Your task to perform on an android device: Search for sushi restaurants on Maps Image 0: 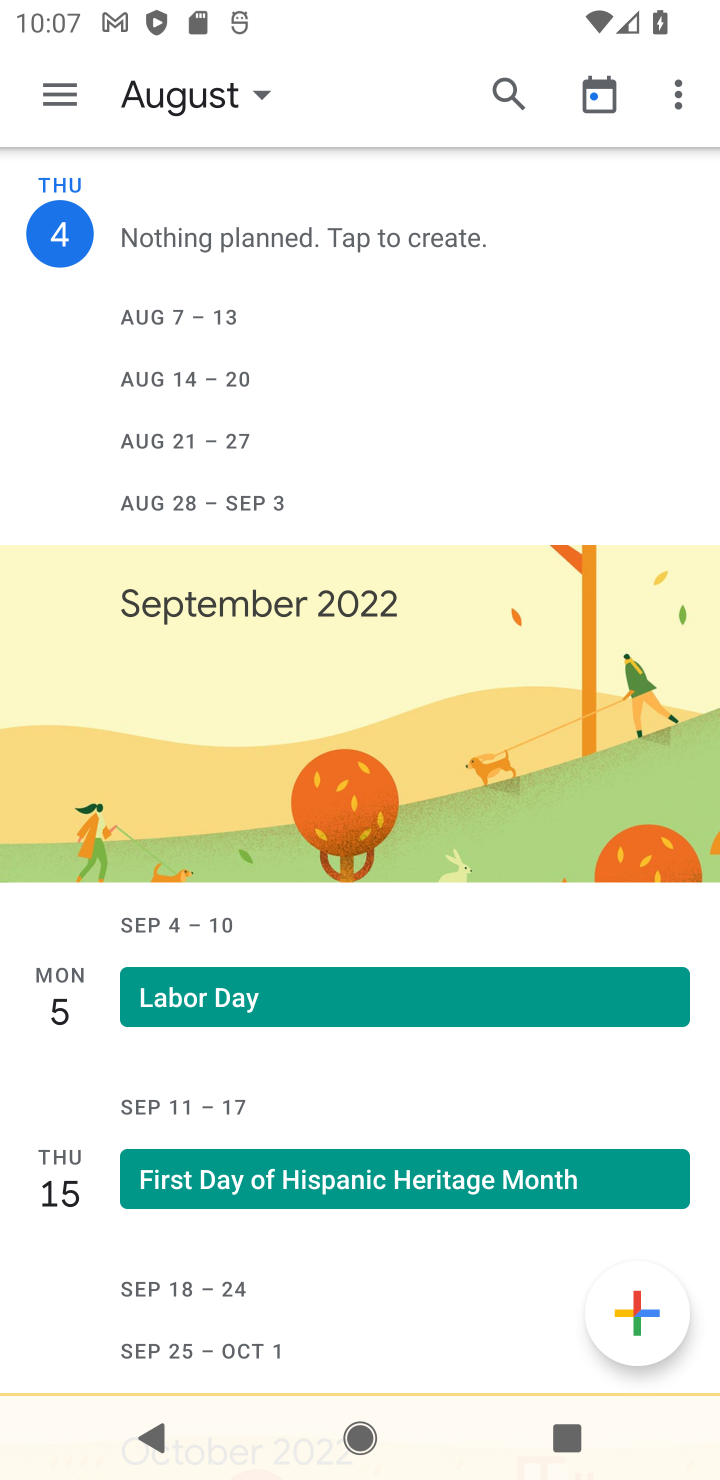
Step 0: press home button
Your task to perform on an android device: Search for sushi restaurants on Maps Image 1: 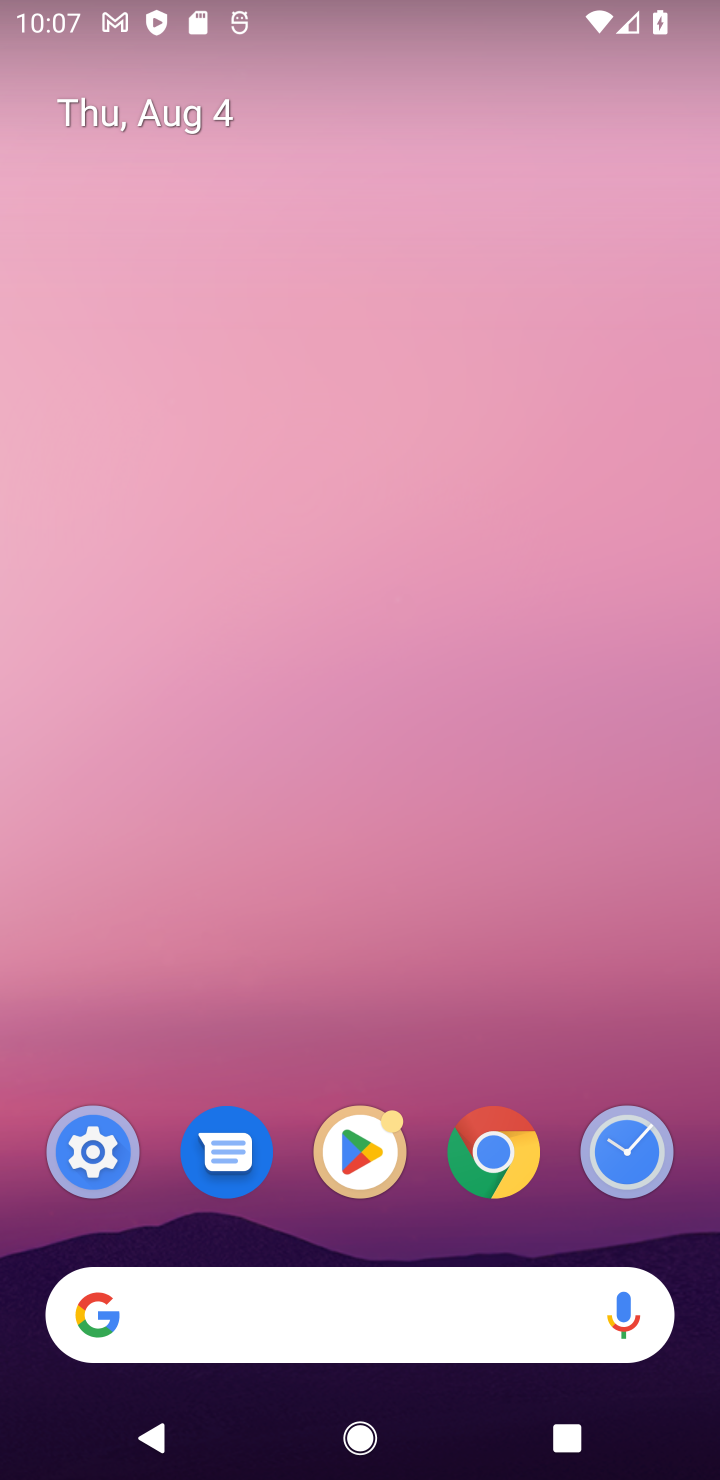
Step 1: drag from (288, 707) to (258, 25)
Your task to perform on an android device: Search for sushi restaurants on Maps Image 2: 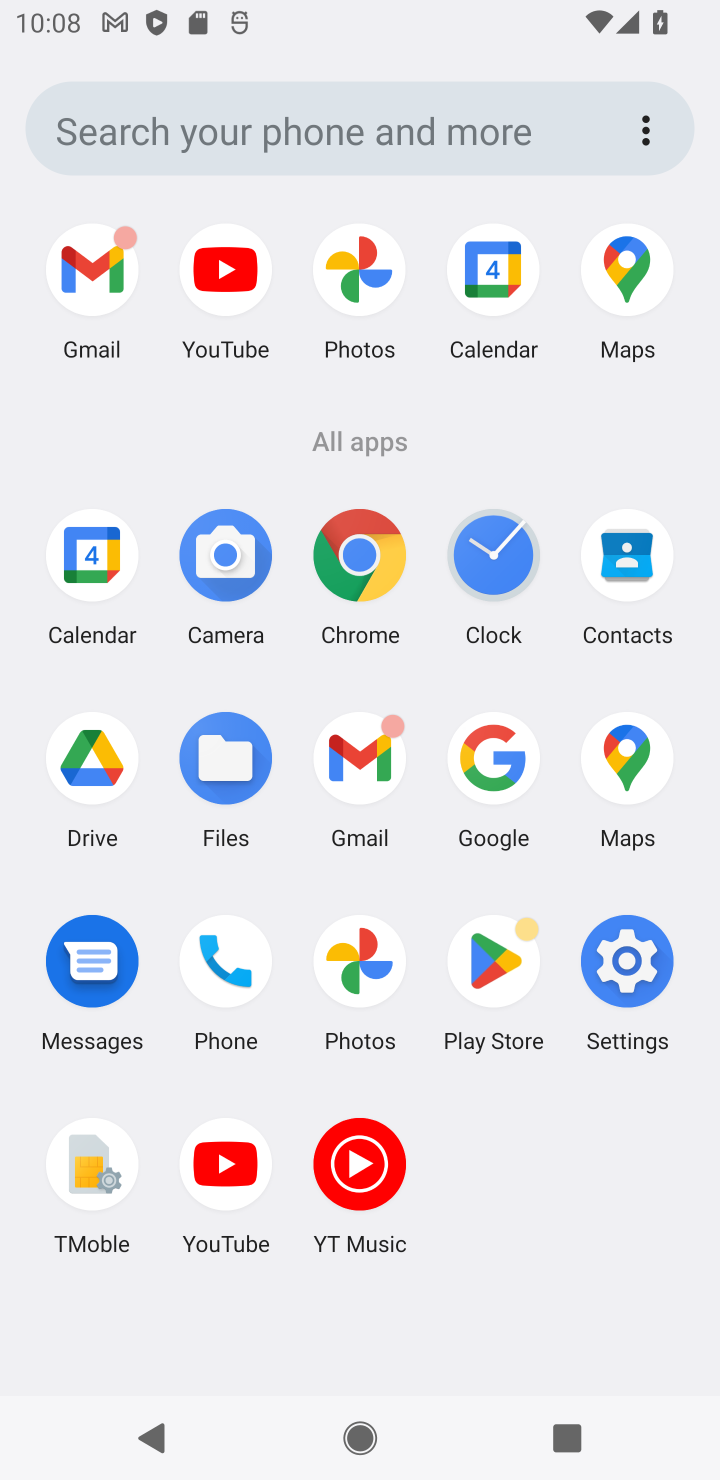
Step 2: click (620, 773)
Your task to perform on an android device: Search for sushi restaurants on Maps Image 3: 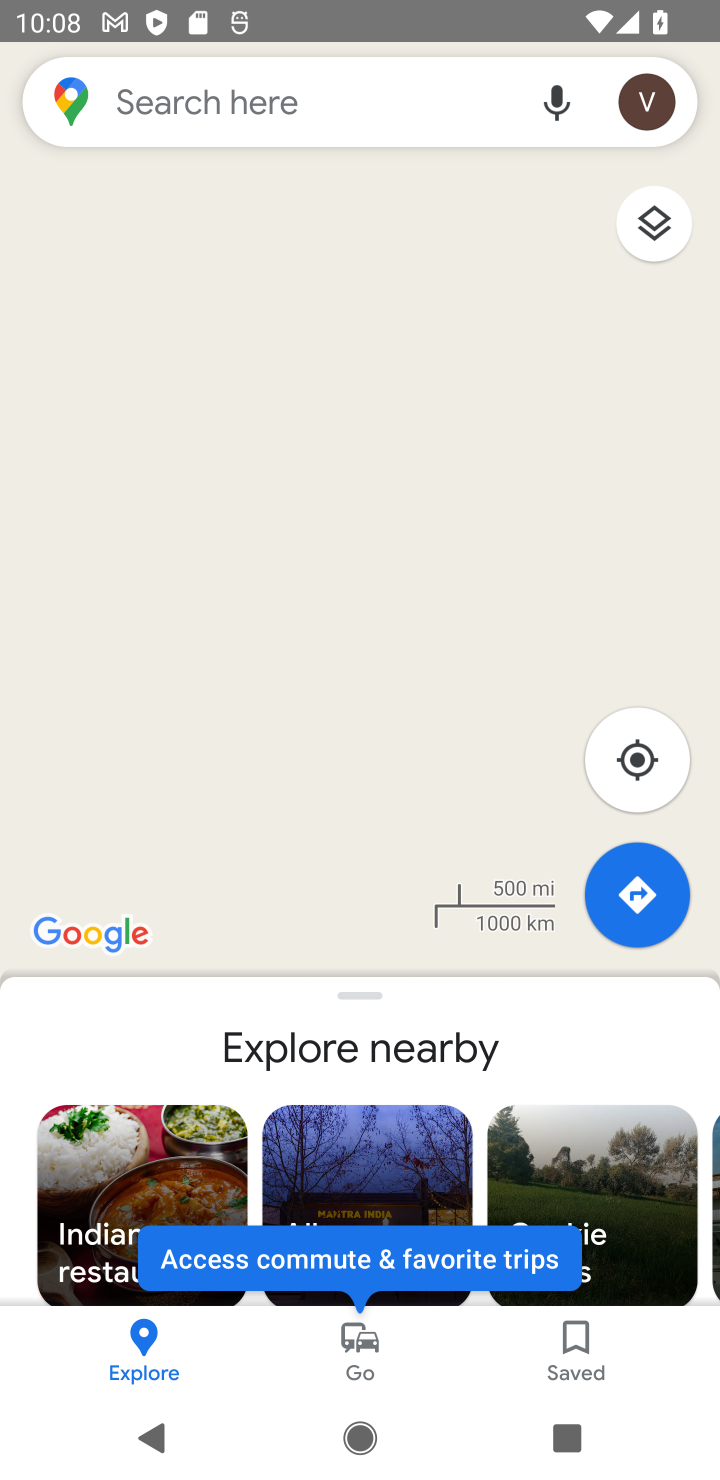
Step 3: click (362, 108)
Your task to perform on an android device: Search for sushi restaurants on Maps Image 4: 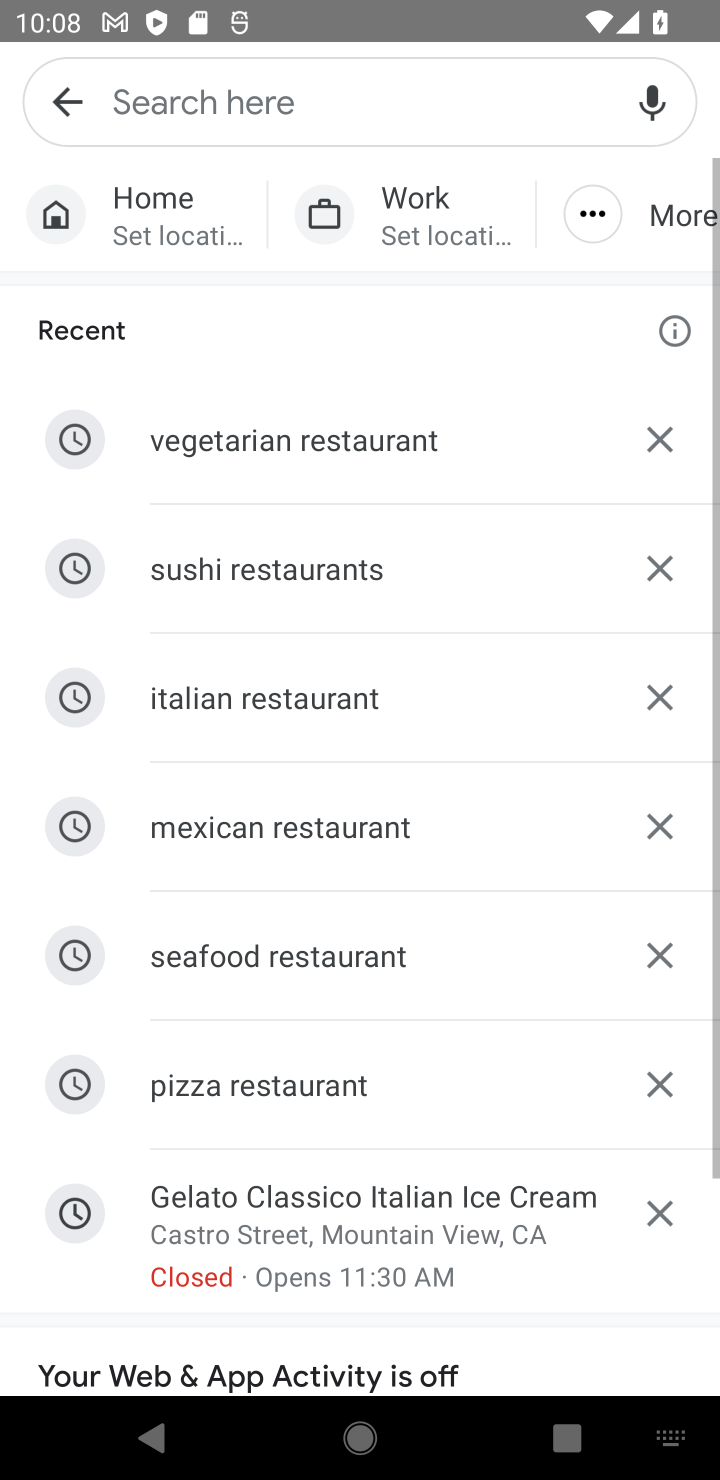
Step 4: type "sushi restaurants"
Your task to perform on an android device: Search for sushi restaurants on Maps Image 5: 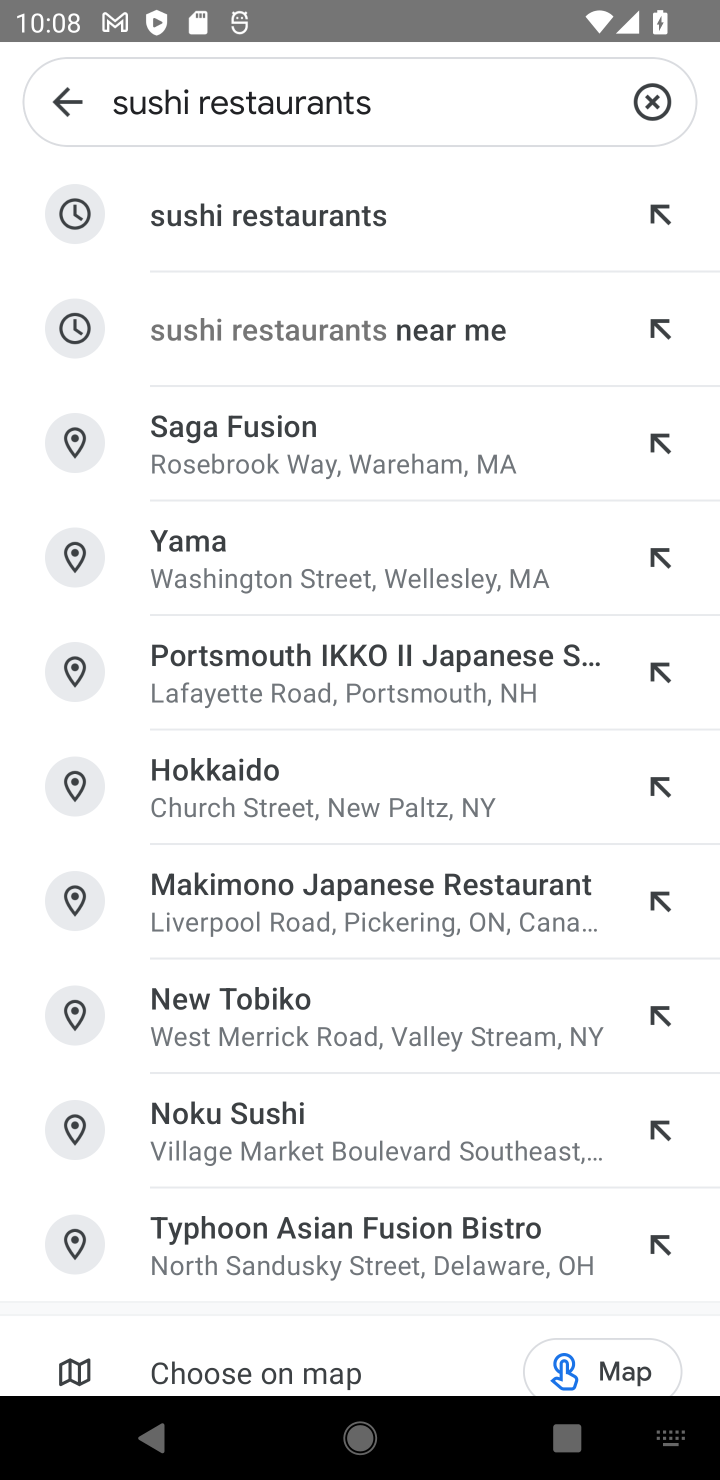
Step 5: click (227, 207)
Your task to perform on an android device: Search for sushi restaurants on Maps Image 6: 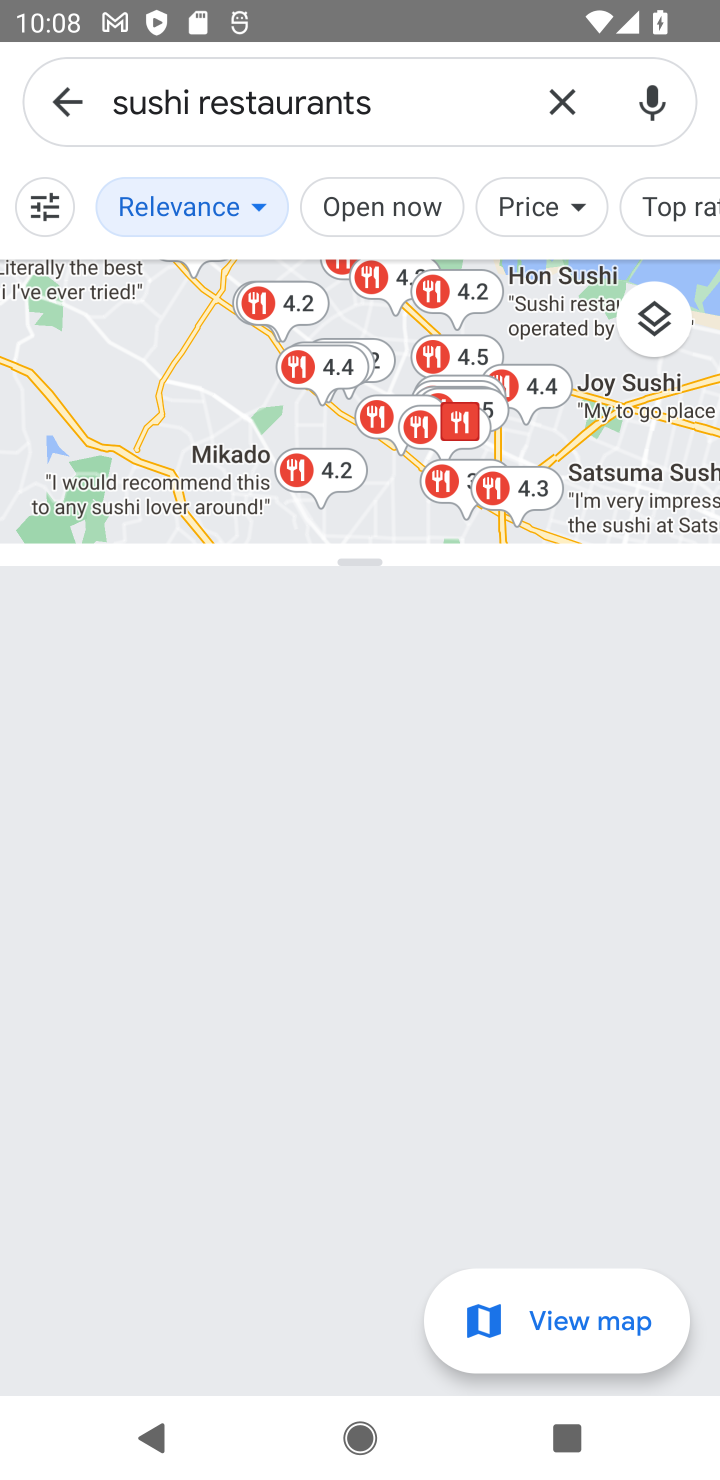
Step 6: task complete